Your task to perform on an android device: Open display settings Image 0: 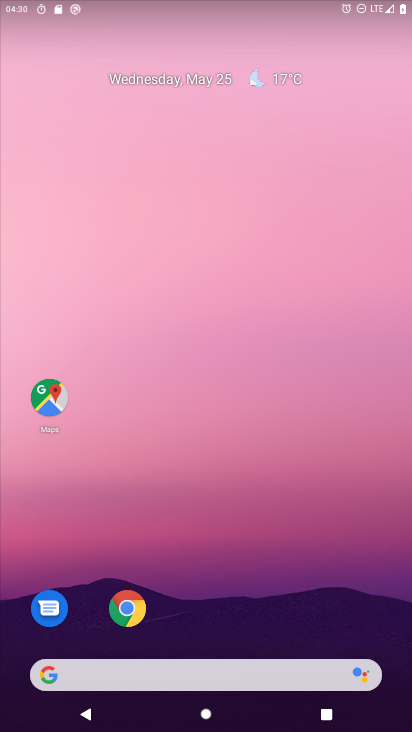
Step 0: click (260, 85)
Your task to perform on an android device: Open display settings Image 1: 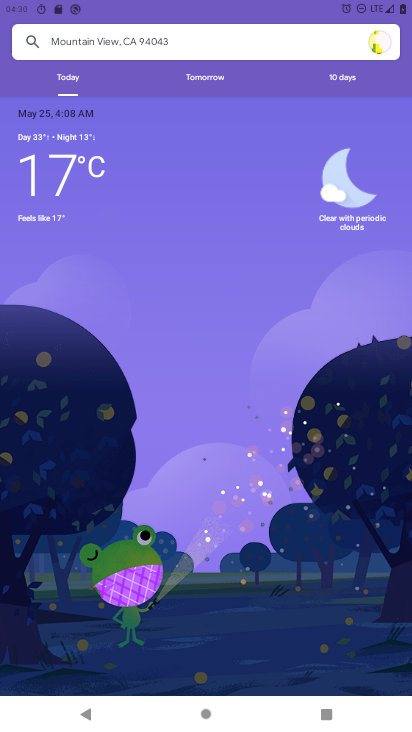
Step 1: press home button
Your task to perform on an android device: Open display settings Image 2: 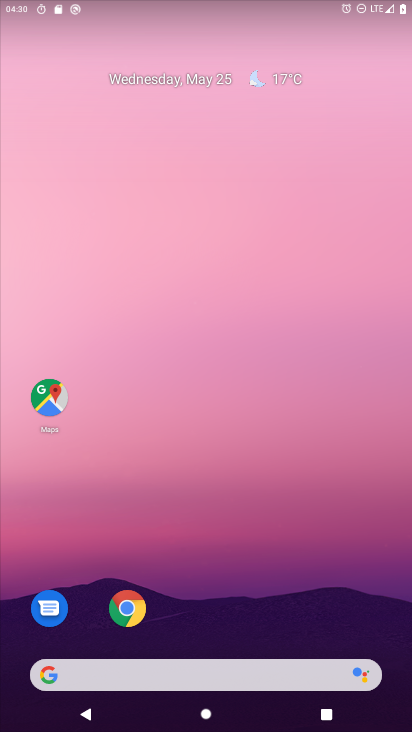
Step 2: drag from (254, 562) to (274, 159)
Your task to perform on an android device: Open display settings Image 3: 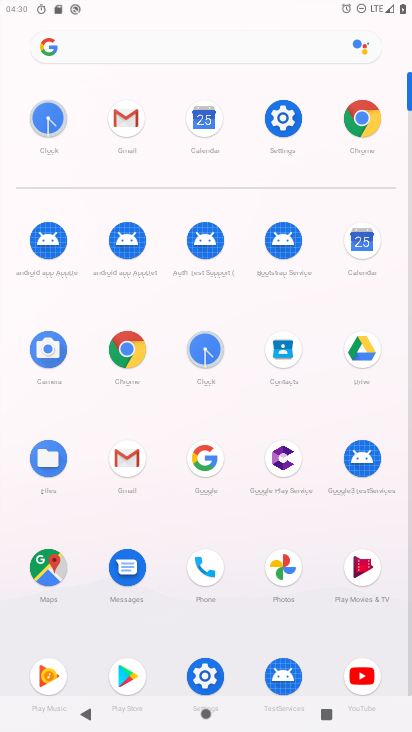
Step 3: click (293, 118)
Your task to perform on an android device: Open display settings Image 4: 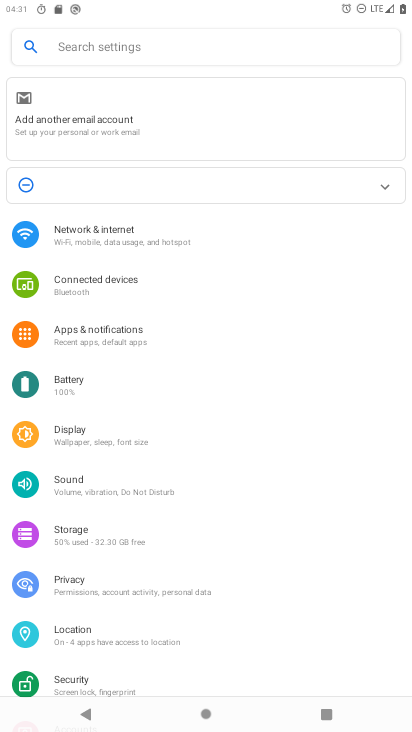
Step 4: click (88, 428)
Your task to perform on an android device: Open display settings Image 5: 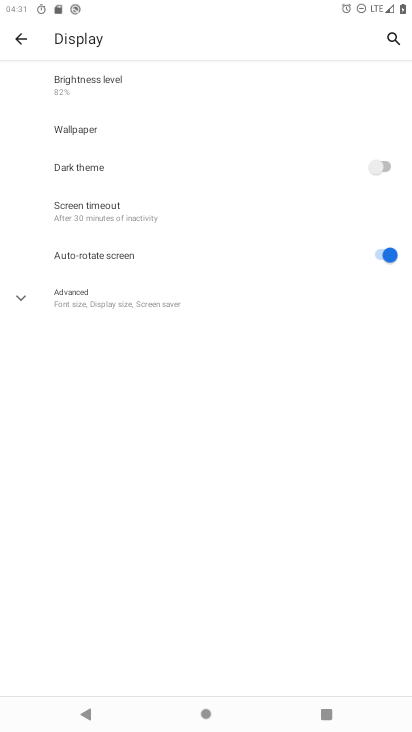
Step 5: task complete